Your task to perform on an android device: open app "Google News" (install if not already installed) Image 0: 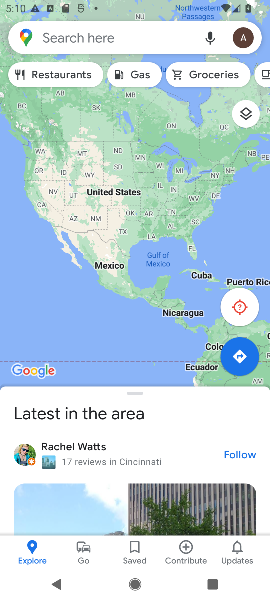
Step 0: press home button
Your task to perform on an android device: open app "Google News" (install if not already installed) Image 1: 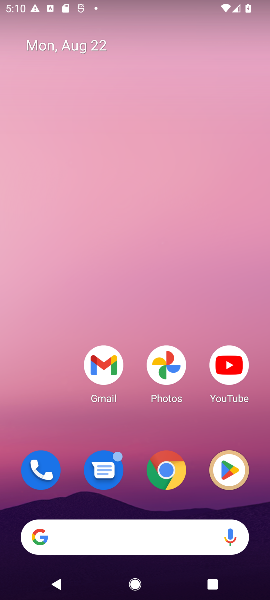
Step 1: drag from (91, 516) to (75, 147)
Your task to perform on an android device: open app "Google News" (install if not already installed) Image 2: 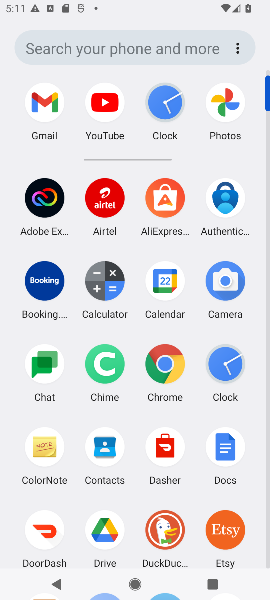
Step 2: drag from (130, 471) to (151, 58)
Your task to perform on an android device: open app "Google News" (install if not already installed) Image 3: 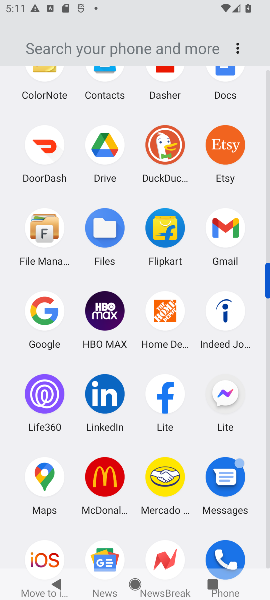
Step 3: drag from (144, 497) to (179, 84)
Your task to perform on an android device: open app "Google News" (install if not already installed) Image 4: 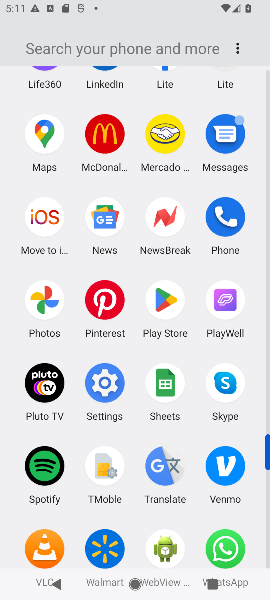
Step 4: click (160, 300)
Your task to perform on an android device: open app "Google News" (install if not already installed) Image 5: 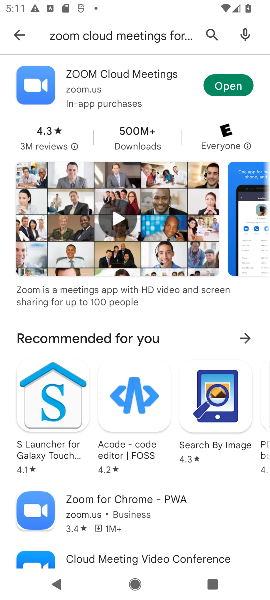
Step 5: click (15, 26)
Your task to perform on an android device: open app "Google News" (install if not already installed) Image 6: 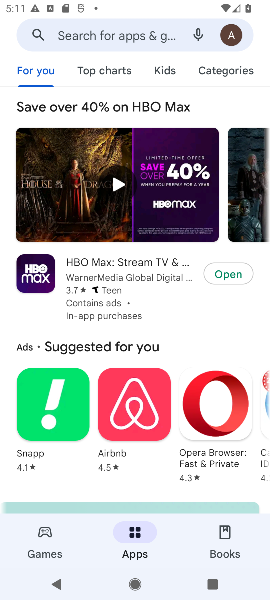
Step 6: click (120, 27)
Your task to perform on an android device: open app "Google News" (install if not already installed) Image 7: 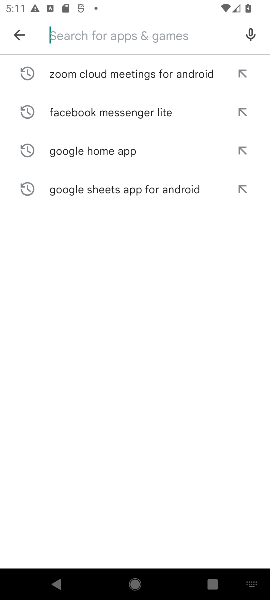
Step 7: type "Google News "
Your task to perform on an android device: open app "Google News" (install if not already installed) Image 8: 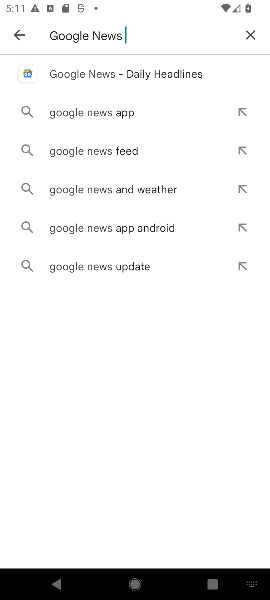
Step 8: click (94, 77)
Your task to perform on an android device: open app "Google News" (install if not already installed) Image 9: 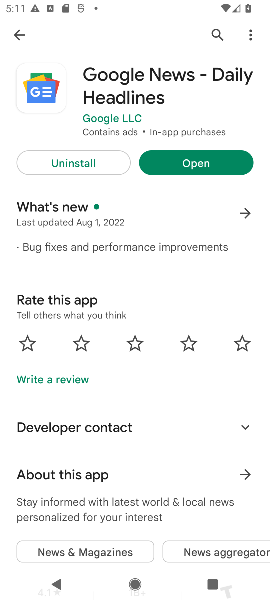
Step 9: click (227, 160)
Your task to perform on an android device: open app "Google News" (install if not already installed) Image 10: 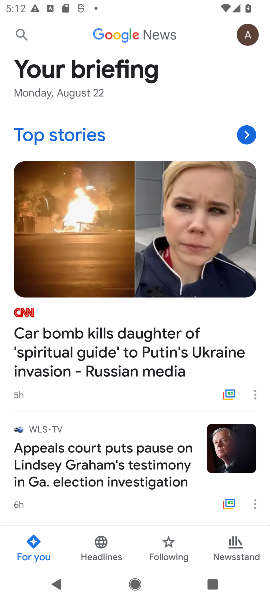
Step 10: task complete